Your task to perform on an android device: turn off location Image 0: 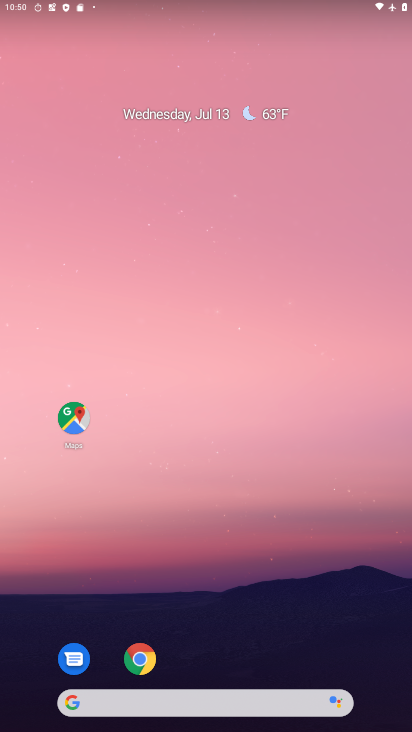
Step 0: drag from (302, 545) to (310, 131)
Your task to perform on an android device: turn off location Image 1: 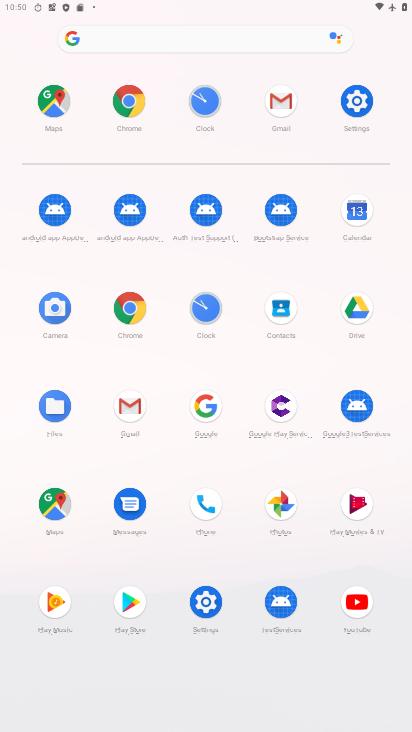
Step 1: click (370, 102)
Your task to perform on an android device: turn off location Image 2: 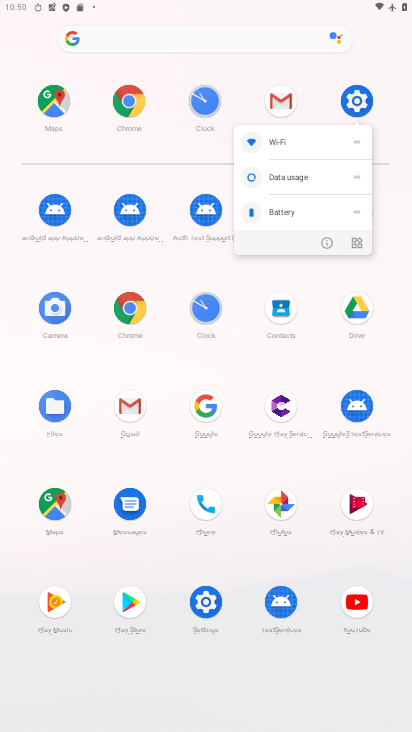
Step 2: click (351, 98)
Your task to perform on an android device: turn off location Image 3: 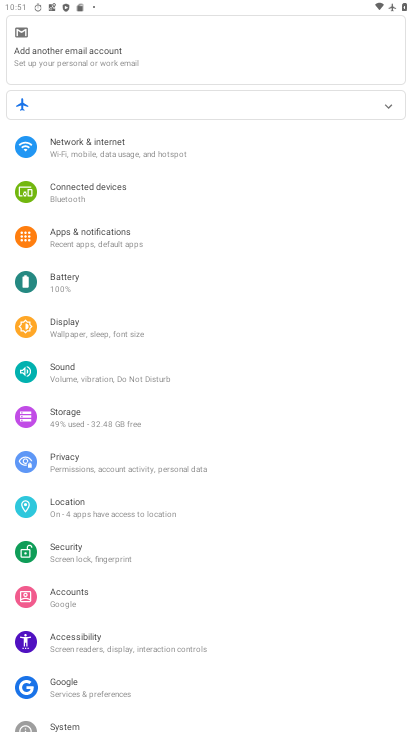
Step 3: drag from (174, 601) to (136, 638)
Your task to perform on an android device: turn off location Image 4: 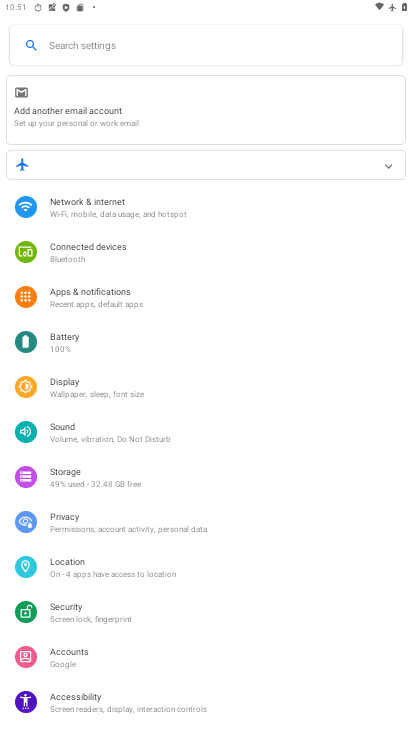
Step 4: click (100, 575)
Your task to perform on an android device: turn off location Image 5: 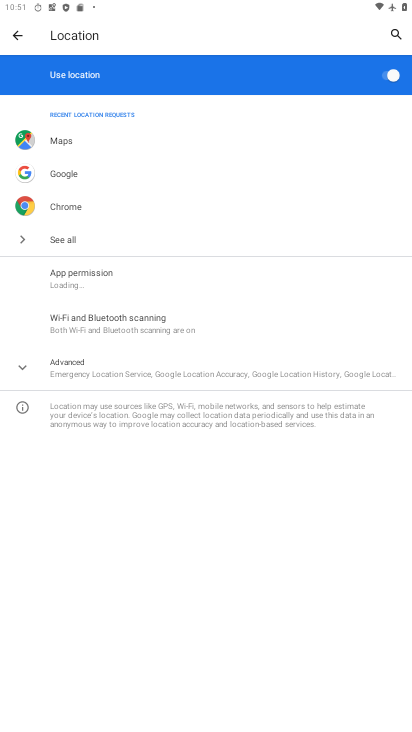
Step 5: click (386, 75)
Your task to perform on an android device: turn off location Image 6: 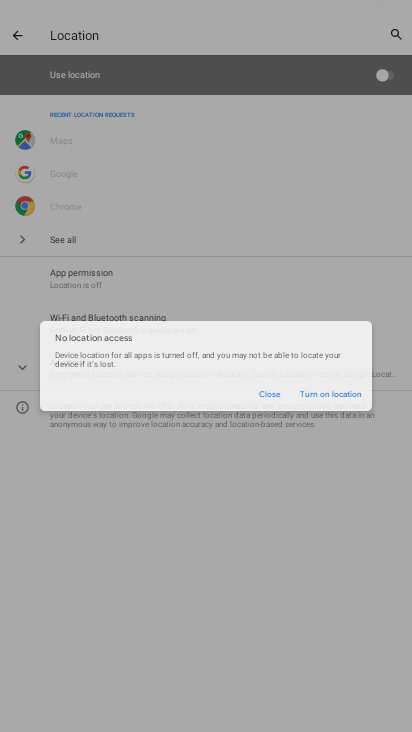
Step 6: task complete